Your task to perform on an android device: turn off location Image 0: 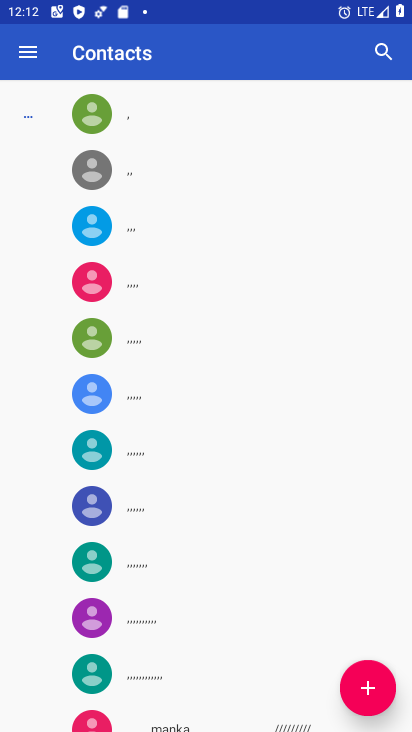
Step 0: press home button
Your task to perform on an android device: turn off location Image 1: 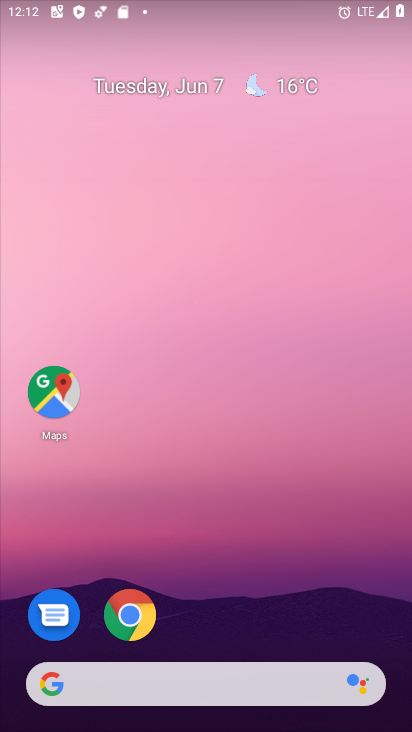
Step 1: drag from (225, 643) to (206, 92)
Your task to perform on an android device: turn off location Image 2: 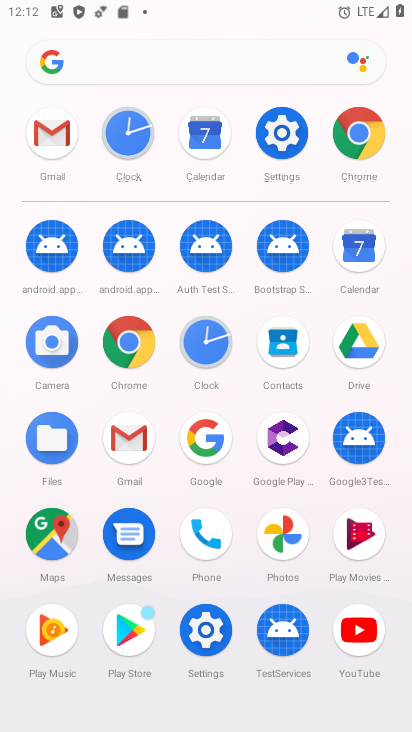
Step 2: click (282, 122)
Your task to perform on an android device: turn off location Image 3: 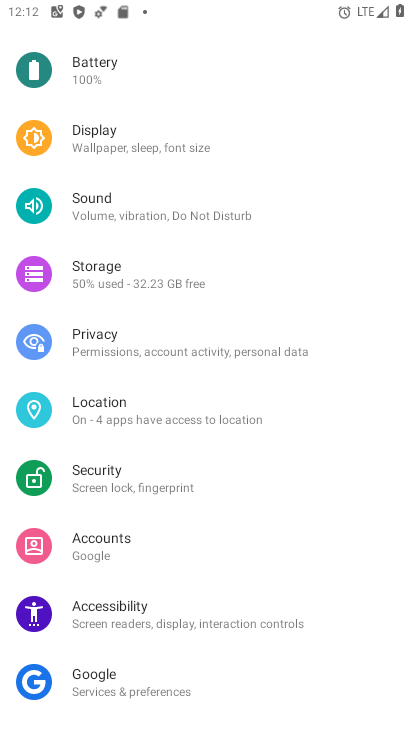
Step 3: click (146, 403)
Your task to perform on an android device: turn off location Image 4: 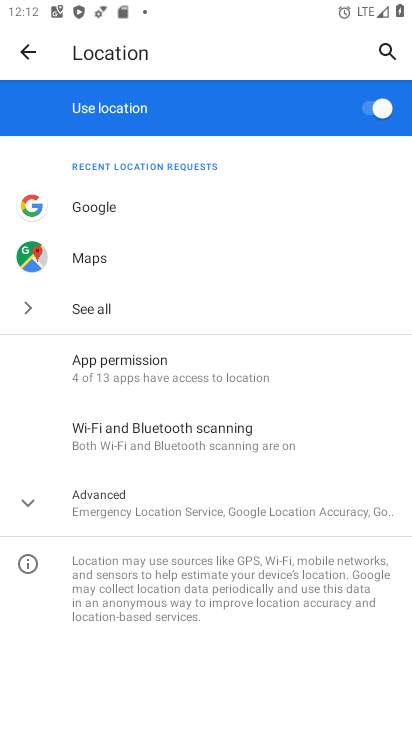
Step 4: click (372, 103)
Your task to perform on an android device: turn off location Image 5: 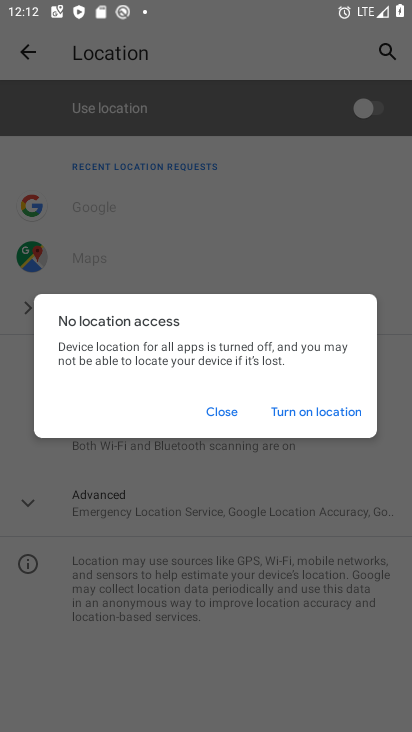
Step 5: click (222, 410)
Your task to perform on an android device: turn off location Image 6: 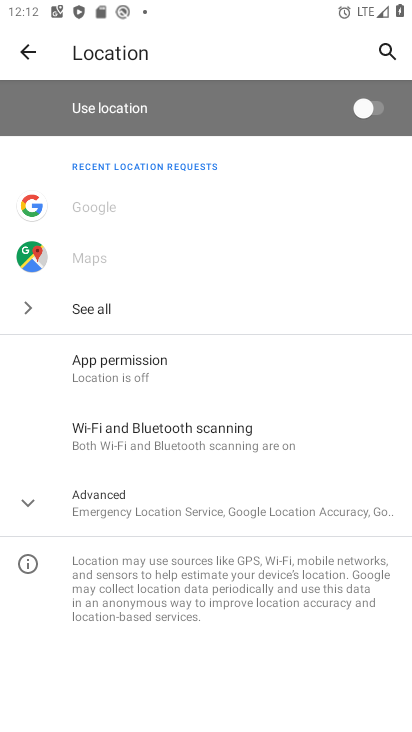
Step 6: task complete